Your task to perform on an android device: Open the calendar app, open the side menu, and click the "Day" option Image 0: 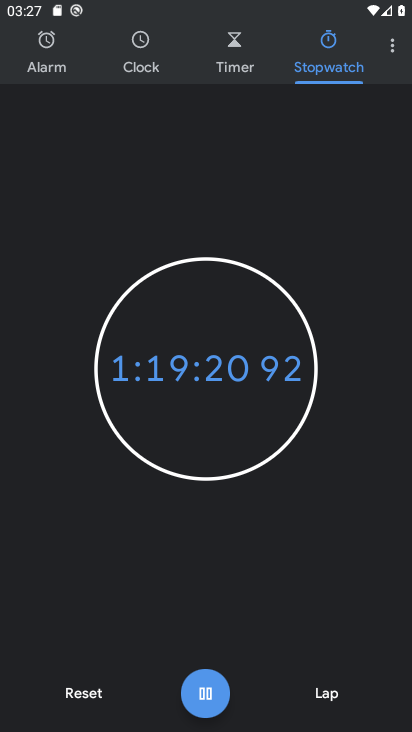
Step 0: press home button
Your task to perform on an android device: Open the calendar app, open the side menu, and click the "Day" option Image 1: 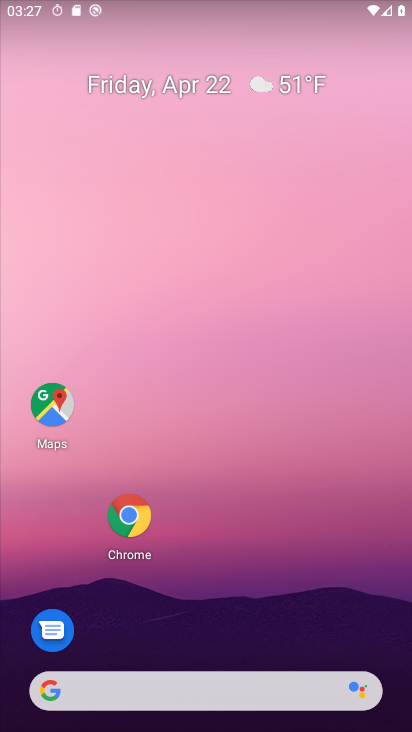
Step 1: drag from (375, 466) to (373, 120)
Your task to perform on an android device: Open the calendar app, open the side menu, and click the "Day" option Image 2: 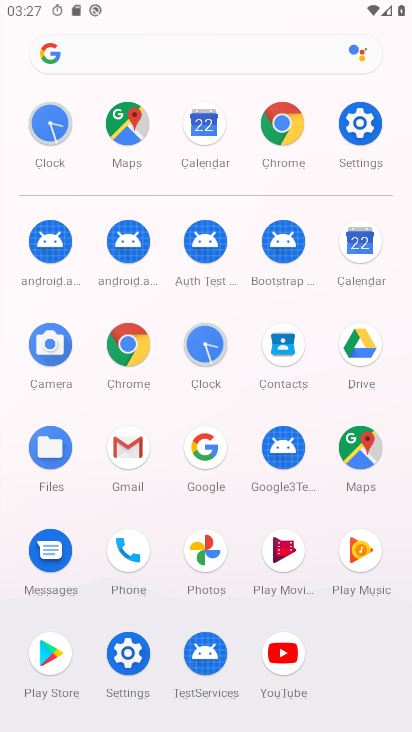
Step 2: click (352, 234)
Your task to perform on an android device: Open the calendar app, open the side menu, and click the "Day" option Image 3: 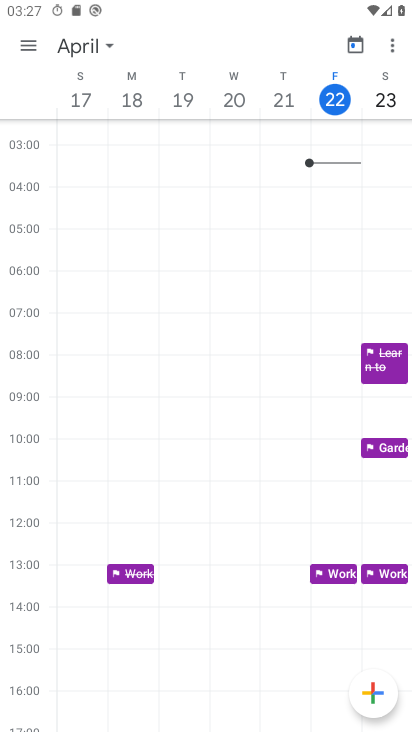
Step 3: click (32, 39)
Your task to perform on an android device: Open the calendar app, open the side menu, and click the "Day" option Image 4: 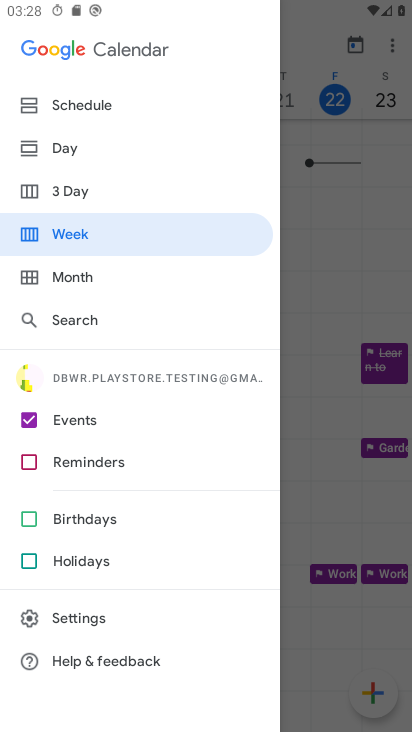
Step 4: click (26, 139)
Your task to perform on an android device: Open the calendar app, open the side menu, and click the "Day" option Image 5: 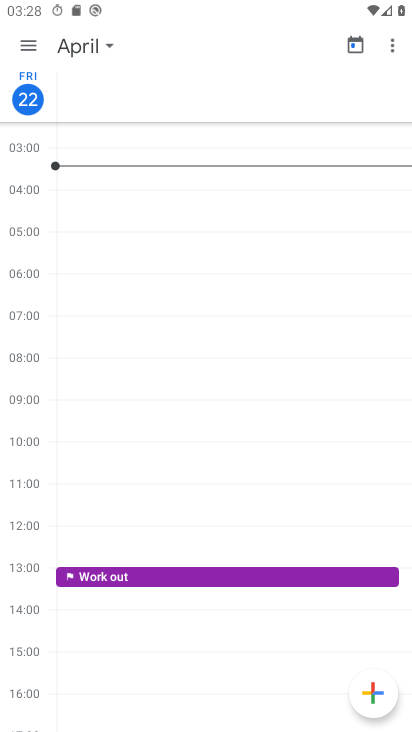
Step 5: task complete